Your task to perform on an android device: turn on the 12-hour format for clock Image 0: 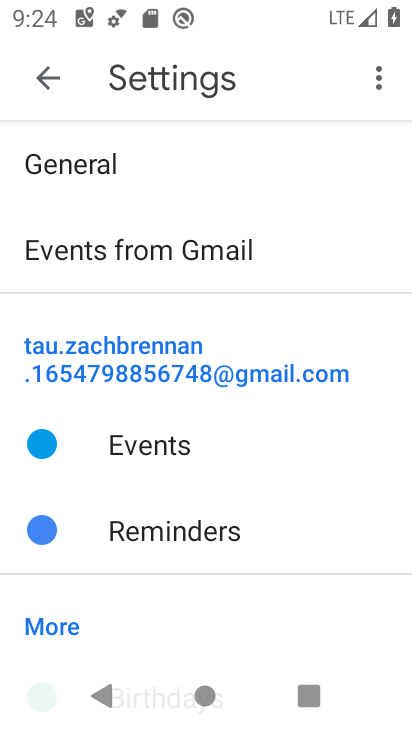
Step 0: press home button
Your task to perform on an android device: turn on the 12-hour format for clock Image 1: 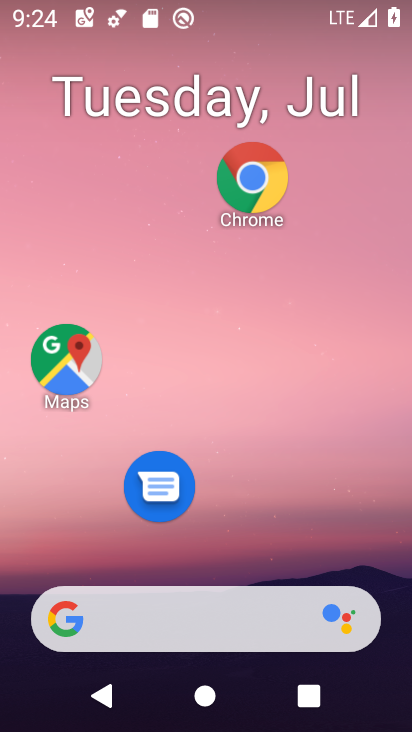
Step 1: drag from (302, 577) to (400, 162)
Your task to perform on an android device: turn on the 12-hour format for clock Image 2: 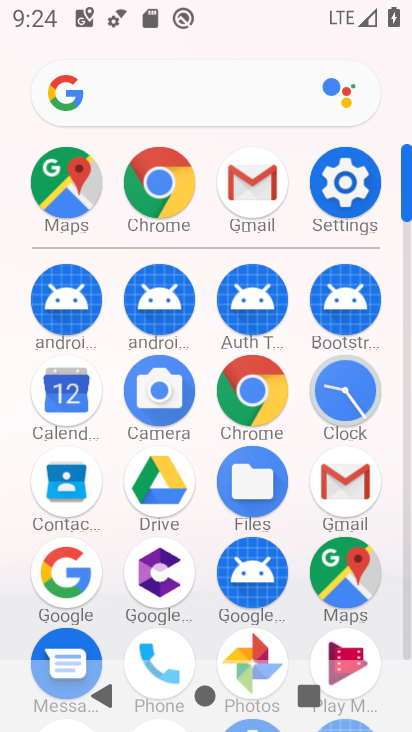
Step 2: click (341, 388)
Your task to perform on an android device: turn on the 12-hour format for clock Image 3: 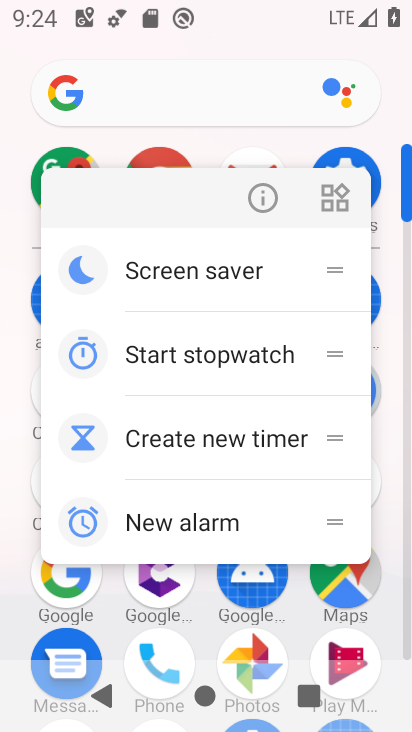
Step 3: click (19, 466)
Your task to perform on an android device: turn on the 12-hour format for clock Image 4: 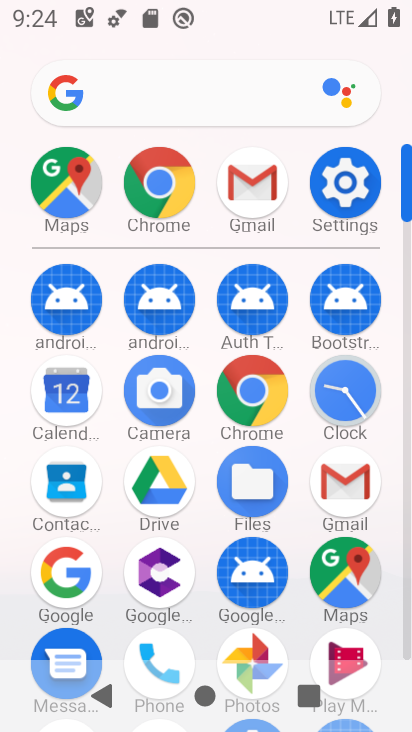
Step 4: click (329, 426)
Your task to perform on an android device: turn on the 12-hour format for clock Image 5: 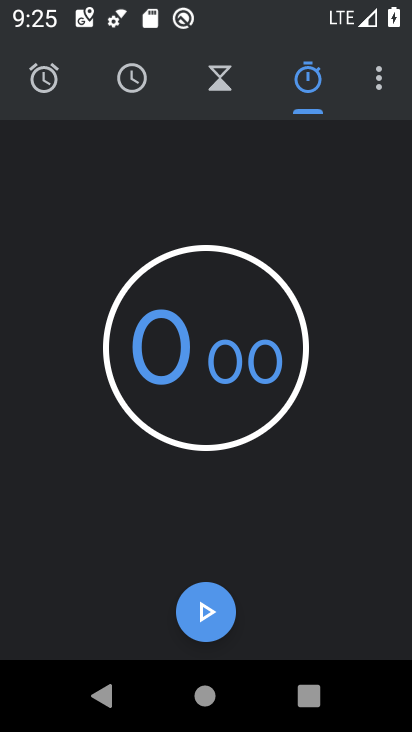
Step 5: click (381, 82)
Your task to perform on an android device: turn on the 12-hour format for clock Image 6: 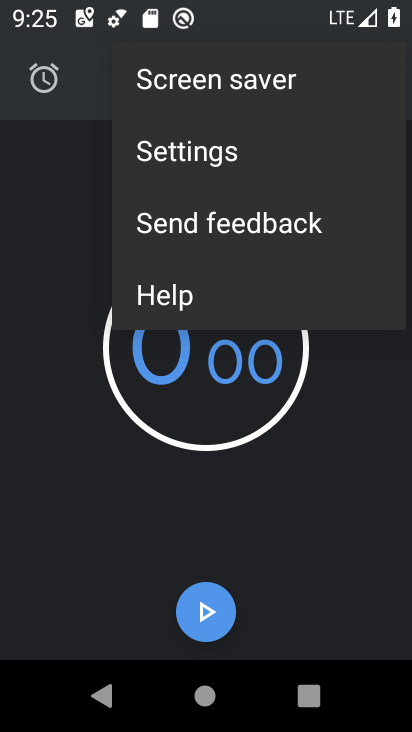
Step 6: click (248, 144)
Your task to perform on an android device: turn on the 12-hour format for clock Image 7: 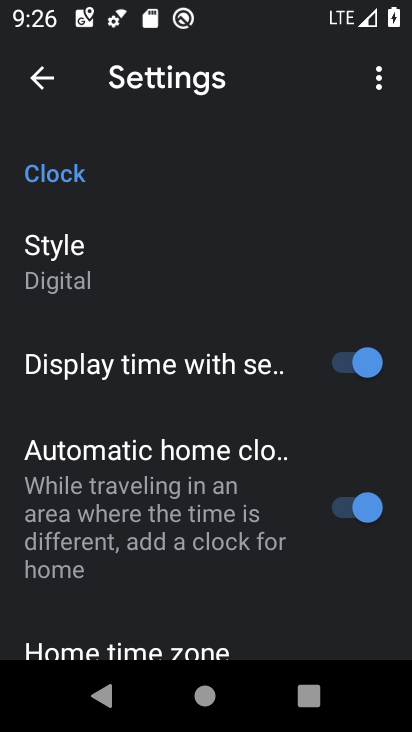
Step 7: drag from (168, 432) to (183, 179)
Your task to perform on an android device: turn on the 12-hour format for clock Image 8: 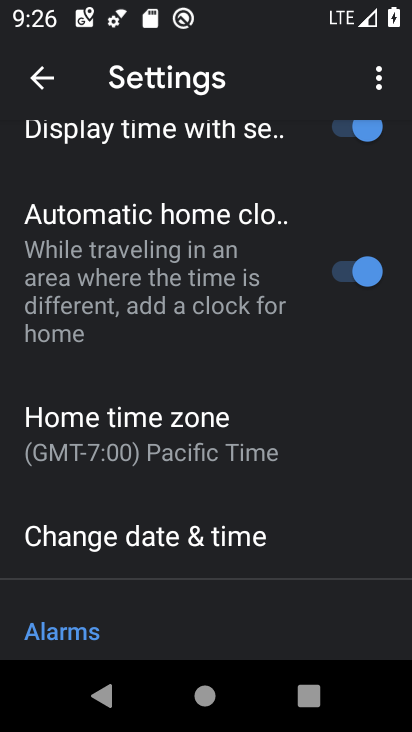
Step 8: click (152, 552)
Your task to perform on an android device: turn on the 12-hour format for clock Image 9: 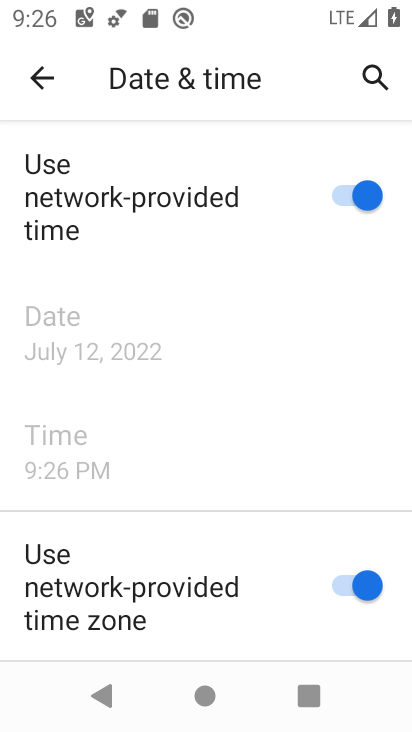
Step 9: task complete